Your task to perform on an android device: find photos in the google photos app Image 0: 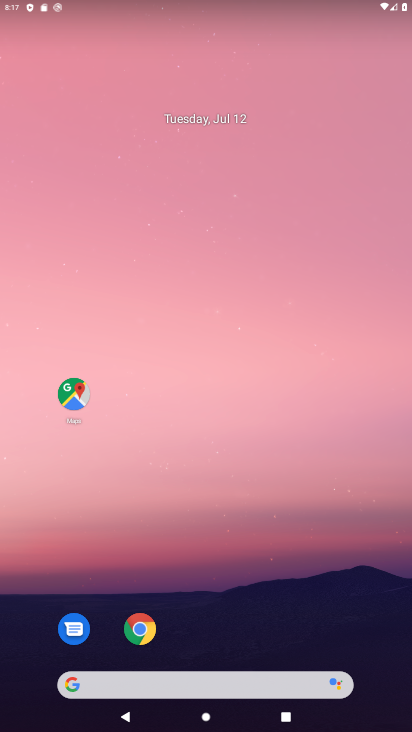
Step 0: drag from (175, 712) to (157, 52)
Your task to perform on an android device: find photos in the google photos app Image 1: 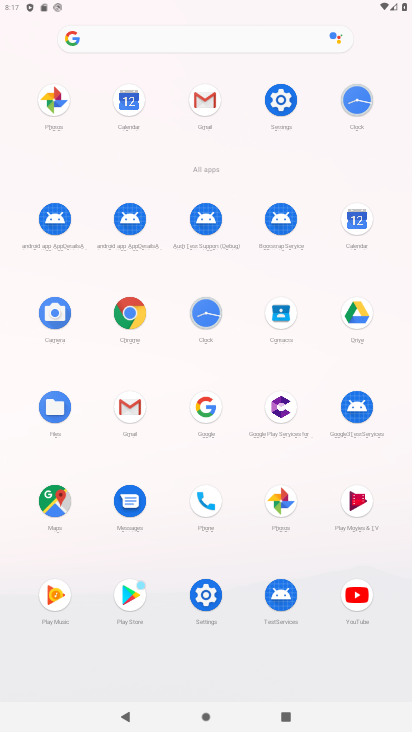
Step 1: click (275, 503)
Your task to perform on an android device: find photos in the google photos app Image 2: 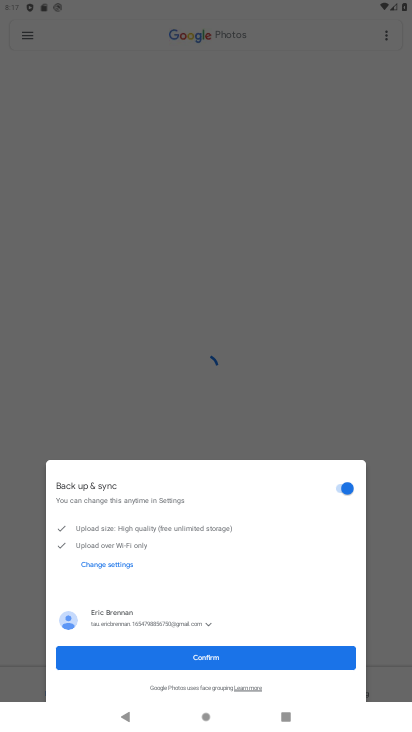
Step 2: click (217, 656)
Your task to perform on an android device: find photos in the google photos app Image 3: 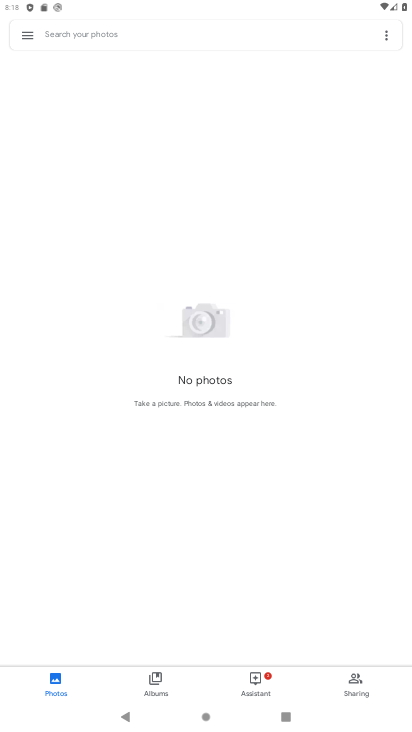
Step 3: task complete